Your task to perform on an android device: open sync settings in chrome Image 0: 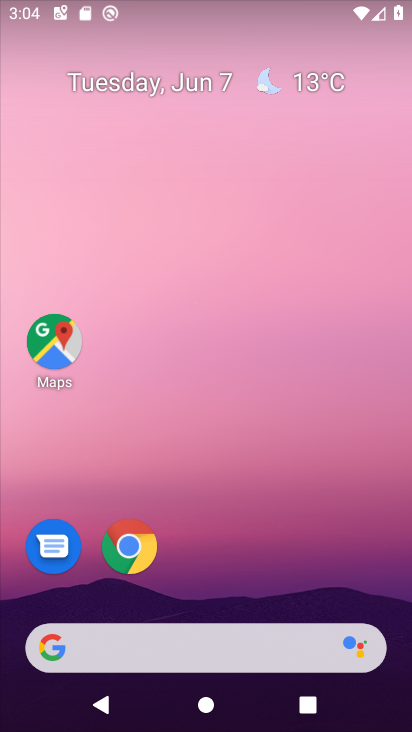
Step 0: drag from (359, 542) to (355, 199)
Your task to perform on an android device: open sync settings in chrome Image 1: 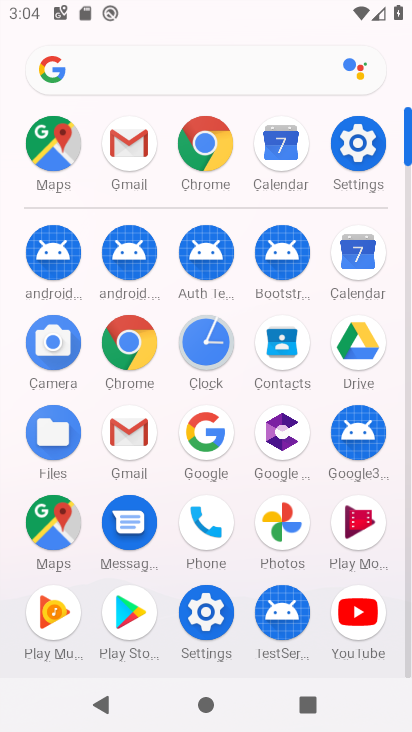
Step 1: click (138, 350)
Your task to perform on an android device: open sync settings in chrome Image 2: 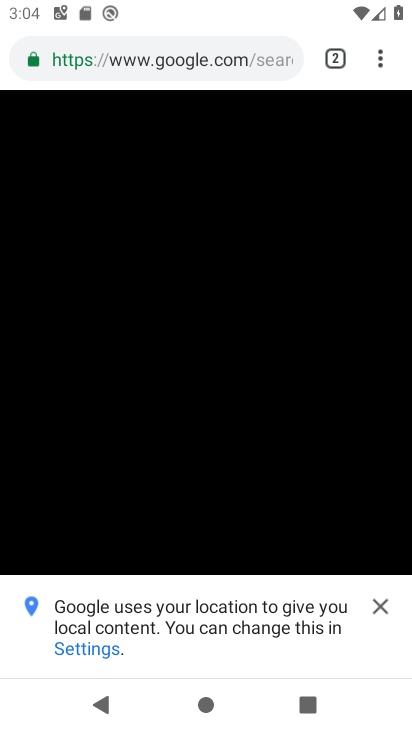
Step 2: click (379, 72)
Your task to perform on an android device: open sync settings in chrome Image 3: 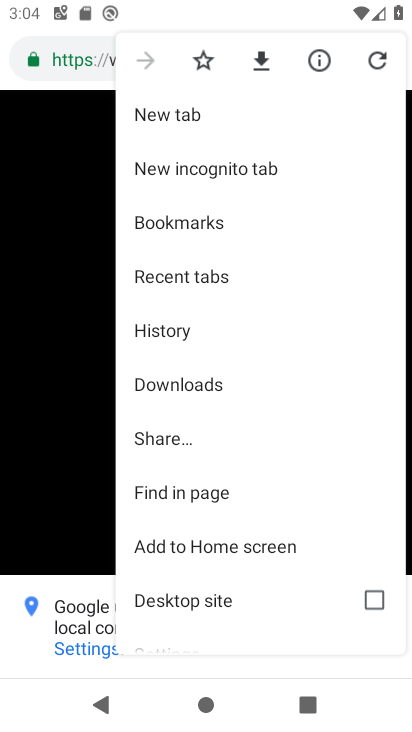
Step 3: drag from (319, 429) to (340, 313)
Your task to perform on an android device: open sync settings in chrome Image 4: 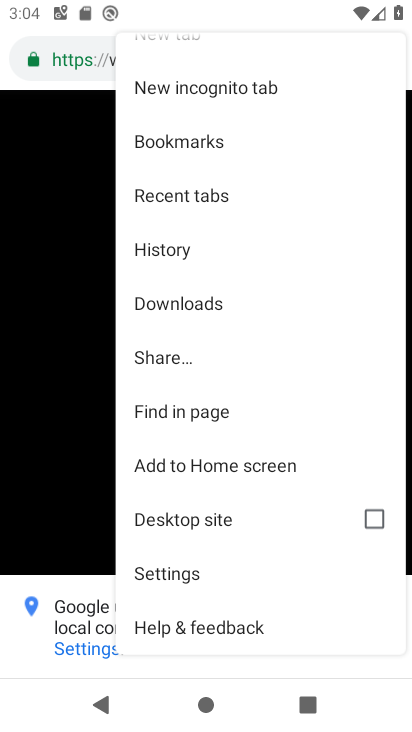
Step 4: click (209, 567)
Your task to perform on an android device: open sync settings in chrome Image 5: 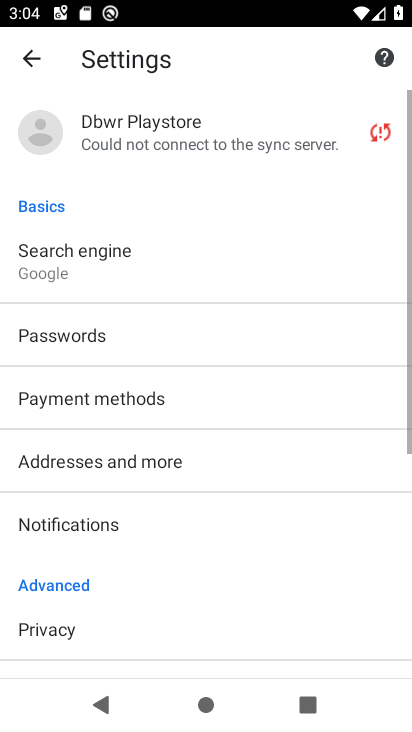
Step 5: drag from (308, 539) to (327, 452)
Your task to perform on an android device: open sync settings in chrome Image 6: 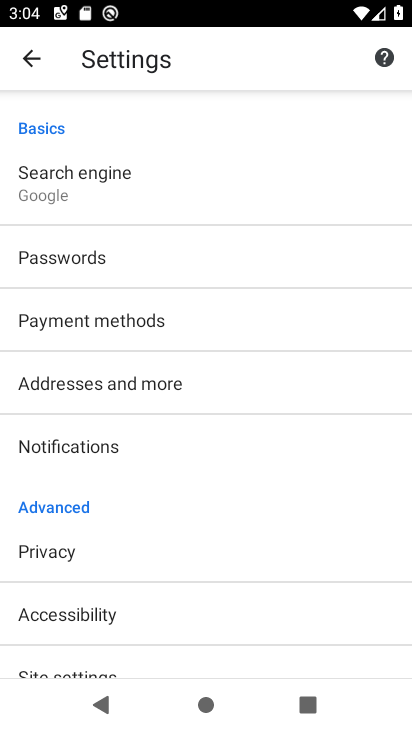
Step 6: drag from (328, 532) to (348, 400)
Your task to perform on an android device: open sync settings in chrome Image 7: 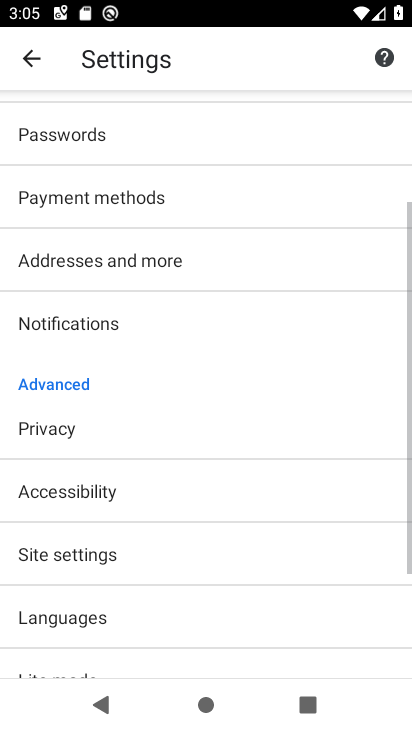
Step 7: drag from (314, 545) to (336, 425)
Your task to perform on an android device: open sync settings in chrome Image 8: 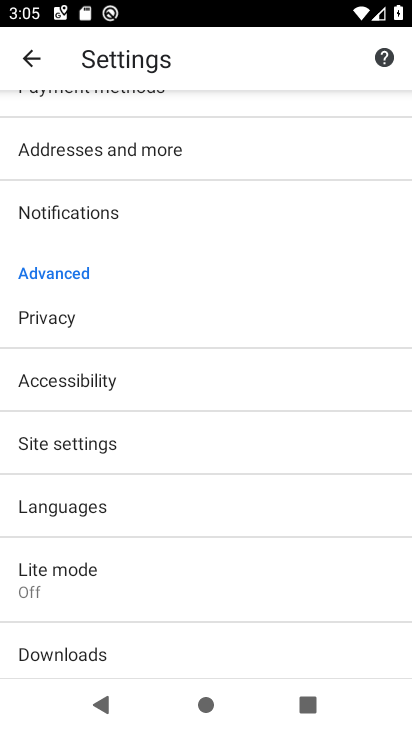
Step 8: drag from (312, 576) to (326, 445)
Your task to perform on an android device: open sync settings in chrome Image 9: 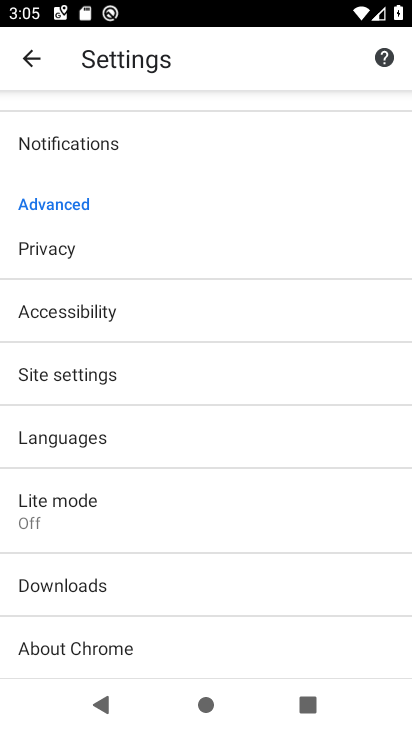
Step 9: click (230, 371)
Your task to perform on an android device: open sync settings in chrome Image 10: 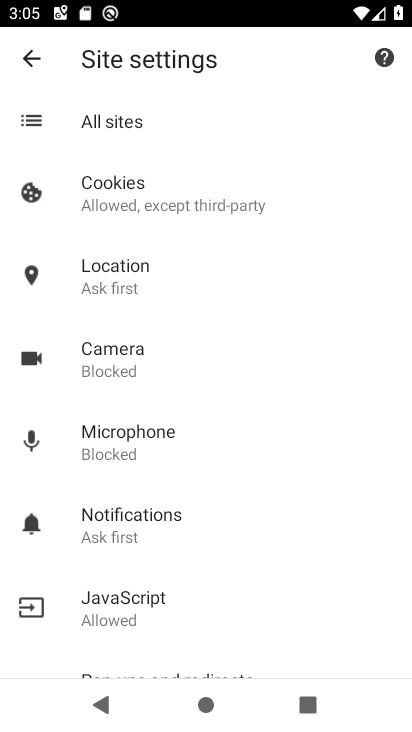
Step 10: drag from (297, 481) to (295, 299)
Your task to perform on an android device: open sync settings in chrome Image 11: 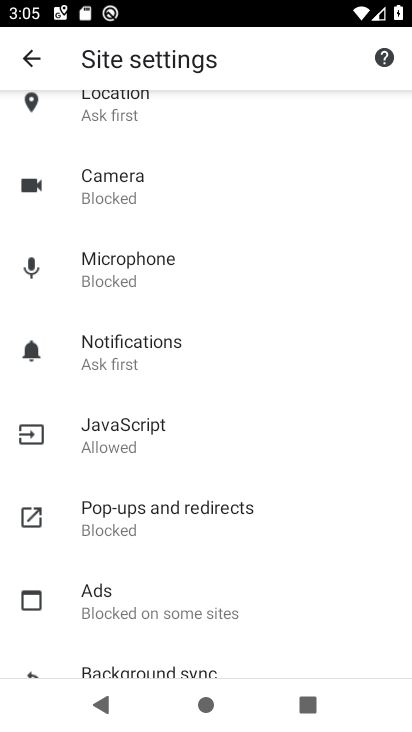
Step 11: drag from (308, 420) to (298, 196)
Your task to perform on an android device: open sync settings in chrome Image 12: 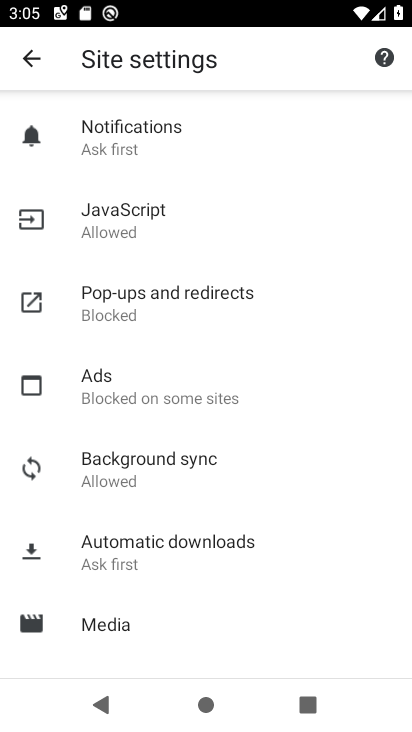
Step 12: click (178, 480)
Your task to perform on an android device: open sync settings in chrome Image 13: 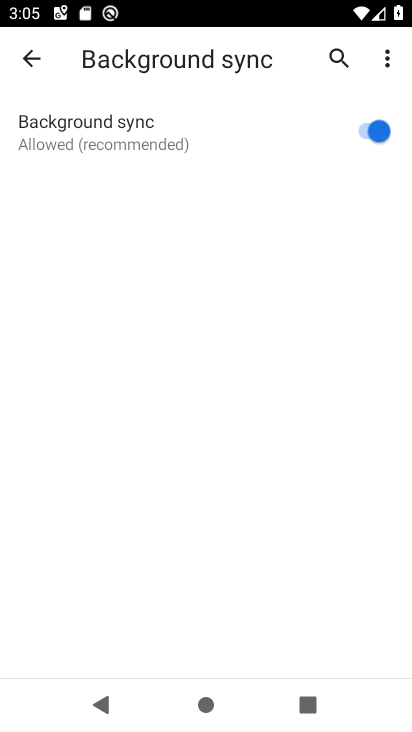
Step 13: task complete